Your task to perform on an android device: Open the phone app and click the voicemail tab. Image 0: 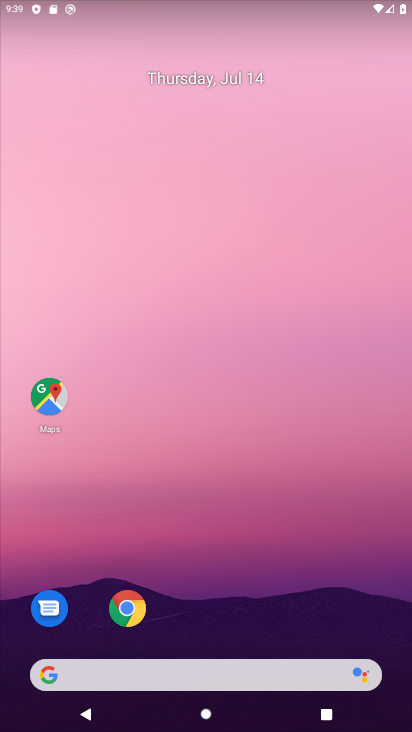
Step 0: drag from (302, 629) to (275, 132)
Your task to perform on an android device: Open the phone app and click the voicemail tab. Image 1: 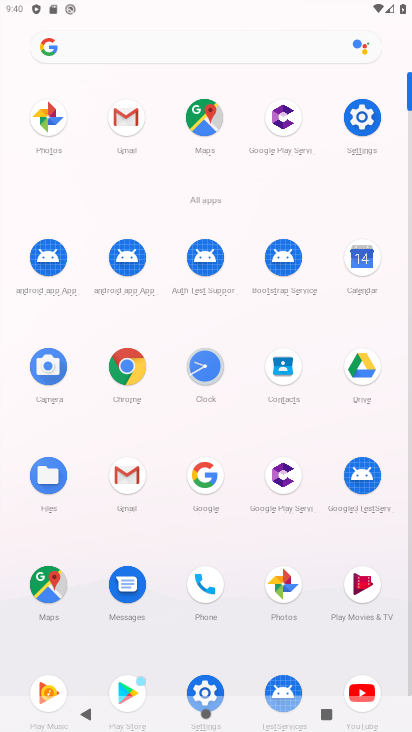
Step 1: click (208, 579)
Your task to perform on an android device: Open the phone app and click the voicemail tab. Image 2: 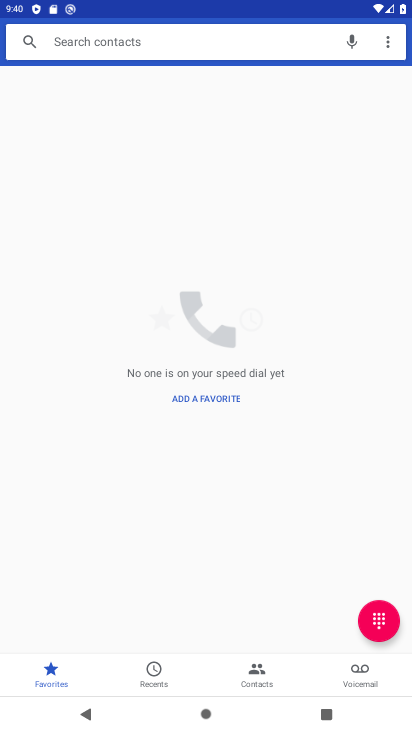
Step 2: click (361, 681)
Your task to perform on an android device: Open the phone app and click the voicemail tab. Image 3: 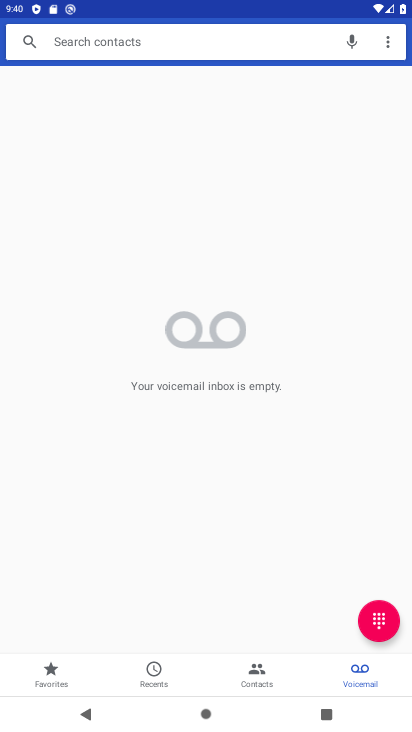
Step 3: task complete